Your task to perform on an android device: turn pop-ups off in chrome Image 0: 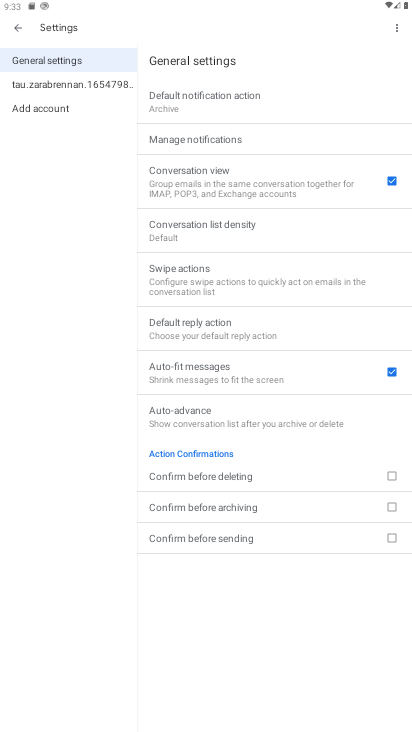
Step 0: press home button
Your task to perform on an android device: turn pop-ups off in chrome Image 1: 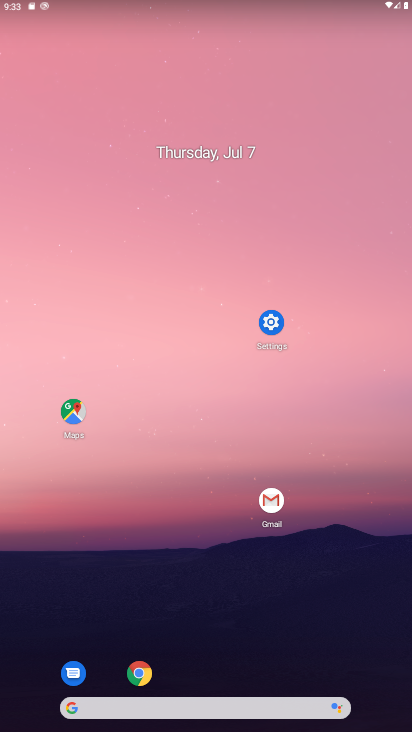
Step 1: click (141, 665)
Your task to perform on an android device: turn pop-ups off in chrome Image 2: 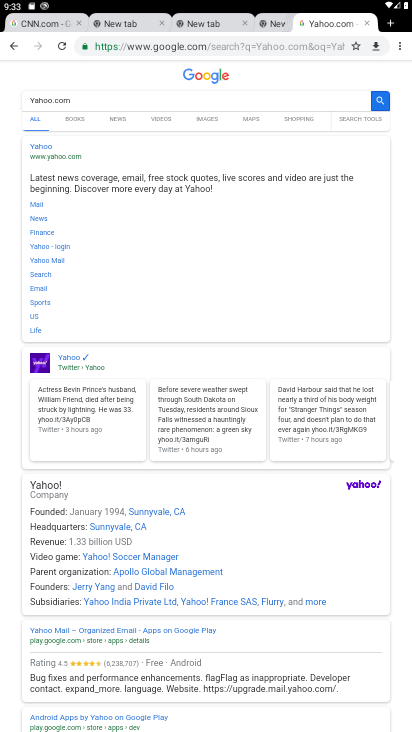
Step 2: click (403, 46)
Your task to perform on an android device: turn pop-ups off in chrome Image 3: 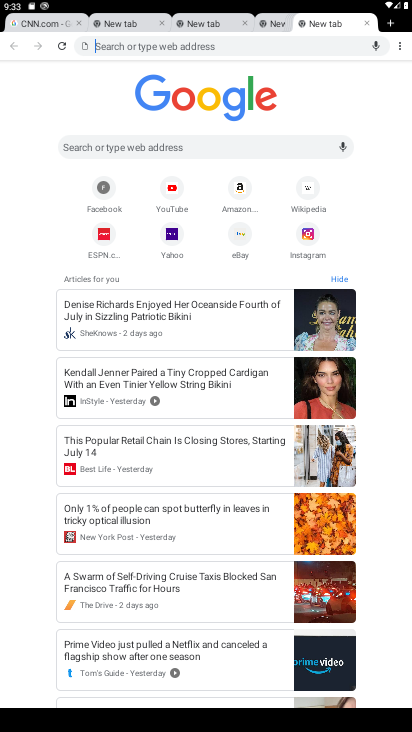
Step 3: click (403, 46)
Your task to perform on an android device: turn pop-ups off in chrome Image 4: 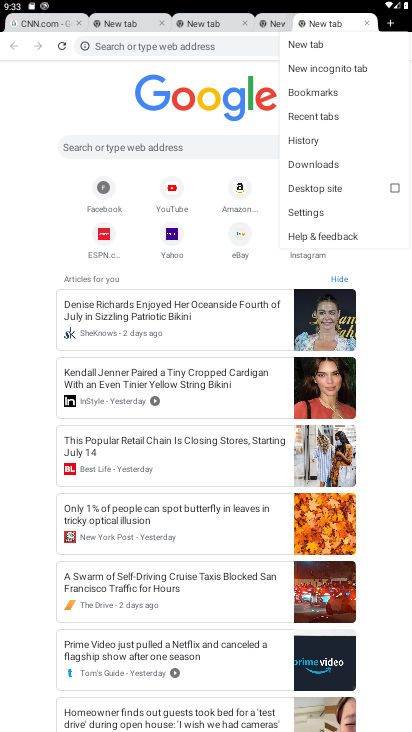
Step 4: click (304, 210)
Your task to perform on an android device: turn pop-ups off in chrome Image 5: 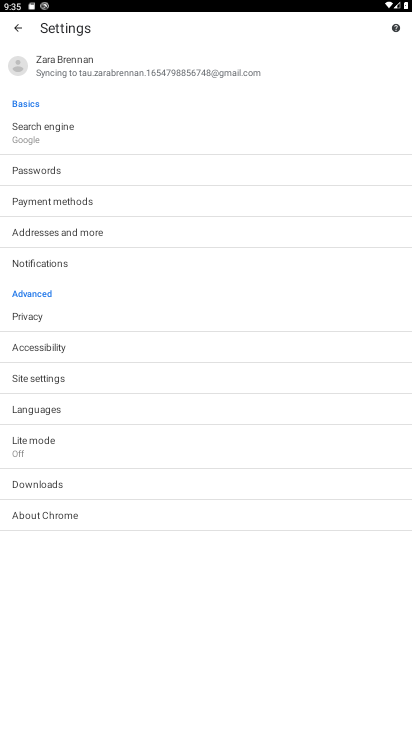
Step 5: click (65, 380)
Your task to perform on an android device: turn pop-ups off in chrome Image 6: 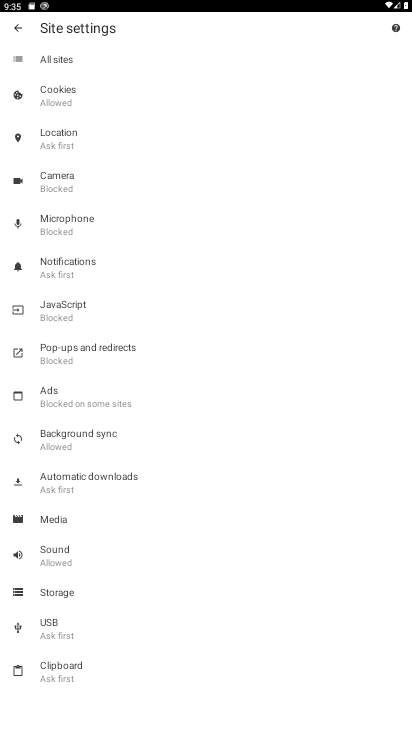
Step 6: click (72, 352)
Your task to perform on an android device: turn pop-ups off in chrome Image 7: 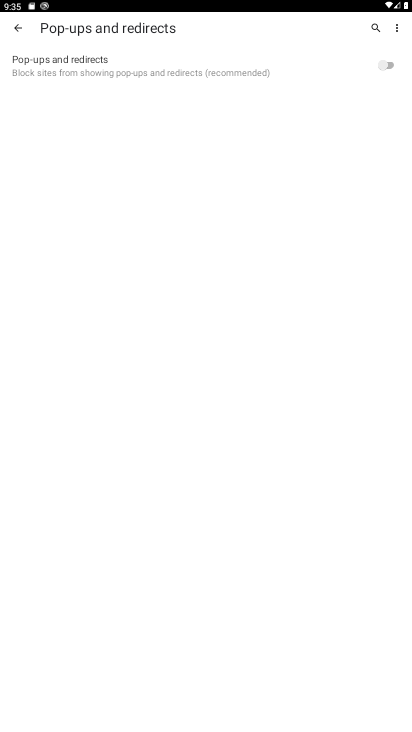
Step 7: task complete